Your task to perform on an android device: toggle location history Image 0: 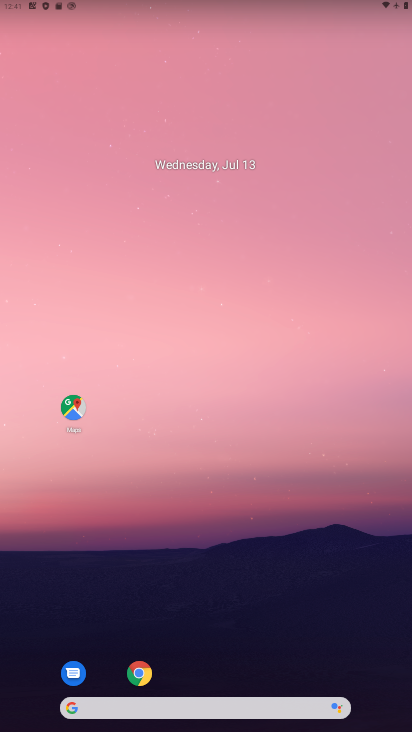
Step 0: drag from (303, 650) to (260, 85)
Your task to perform on an android device: toggle location history Image 1: 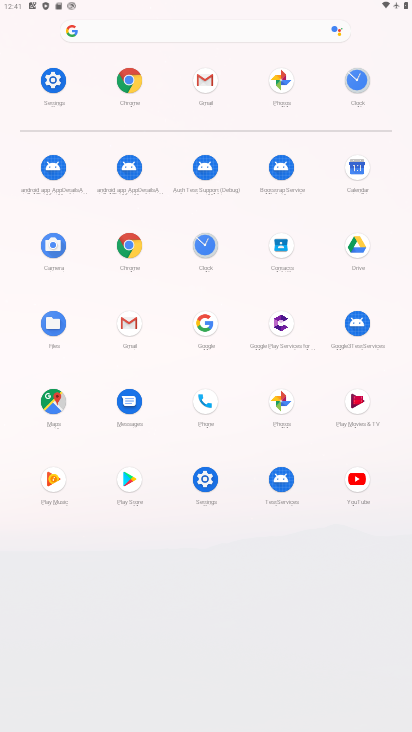
Step 1: click (57, 98)
Your task to perform on an android device: toggle location history Image 2: 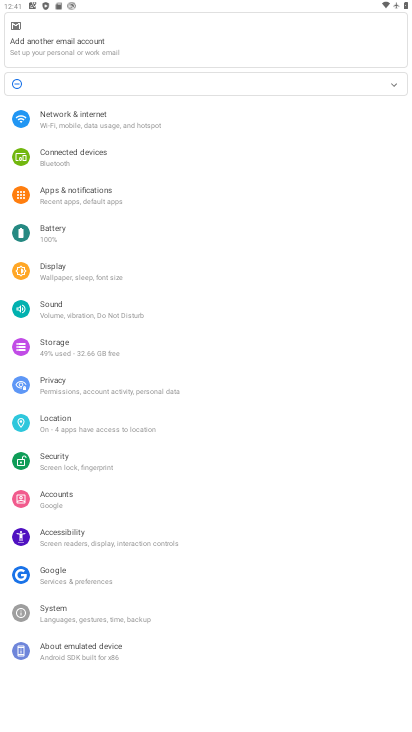
Step 2: click (112, 423)
Your task to perform on an android device: toggle location history Image 3: 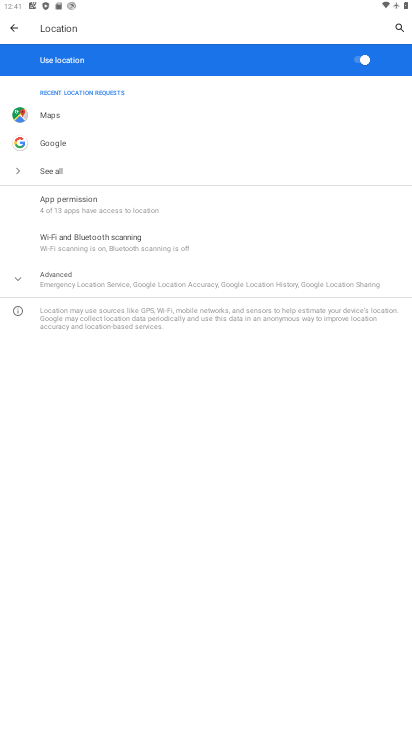
Step 3: click (357, 69)
Your task to perform on an android device: toggle location history Image 4: 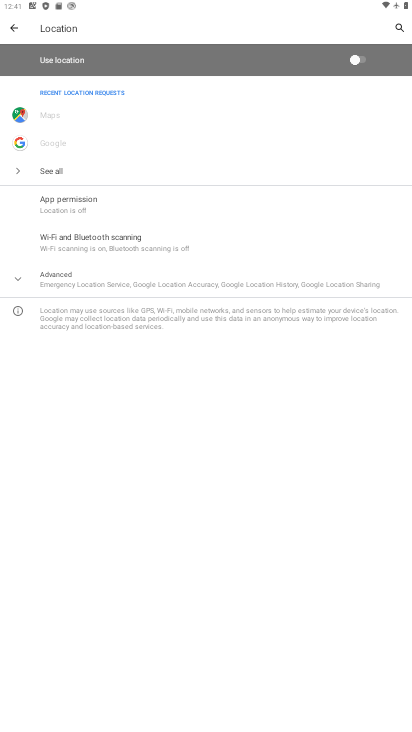
Step 4: task complete